Your task to perform on an android device: turn off airplane mode Image 0: 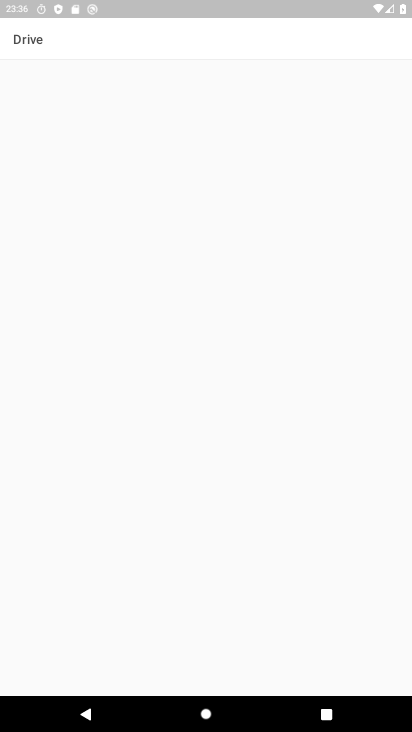
Step 0: click (130, 608)
Your task to perform on an android device: turn off airplane mode Image 1: 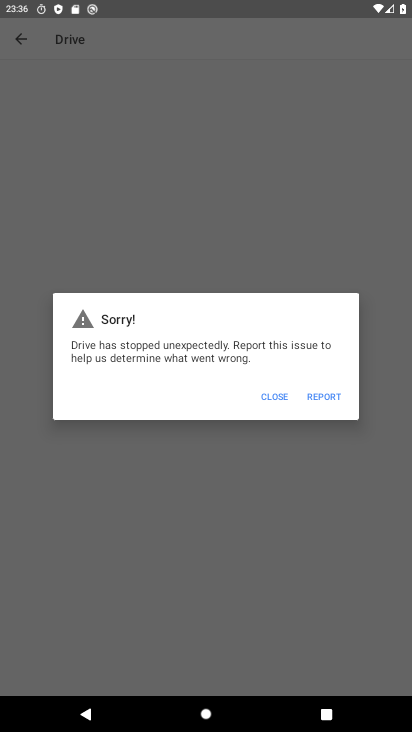
Step 1: press home button
Your task to perform on an android device: turn off airplane mode Image 2: 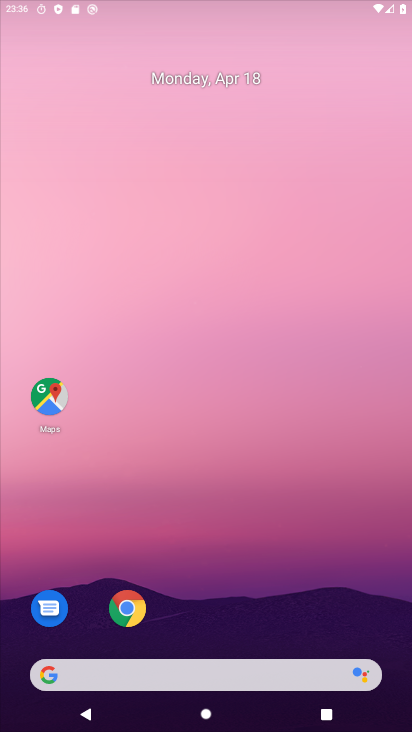
Step 2: drag from (259, 593) to (283, 178)
Your task to perform on an android device: turn off airplane mode Image 3: 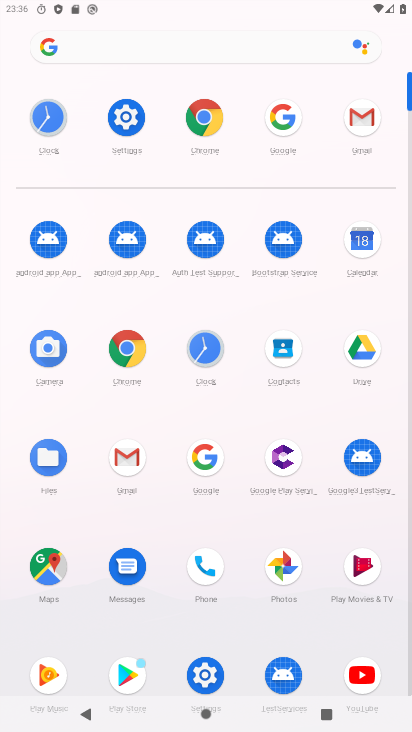
Step 3: click (120, 122)
Your task to perform on an android device: turn off airplane mode Image 4: 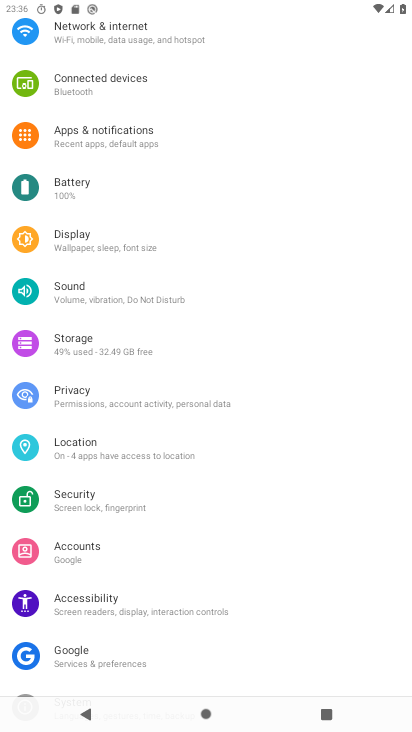
Step 4: click (114, 31)
Your task to perform on an android device: turn off airplane mode Image 5: 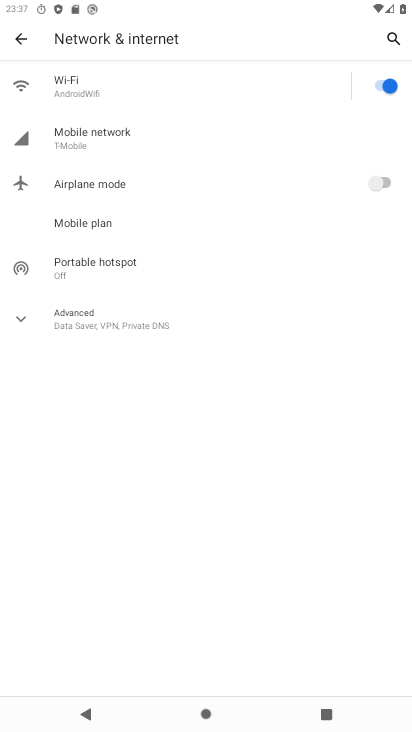
Step 5: task complete